Your task to perform on an android device: see creations saved in the google photos Image 0: 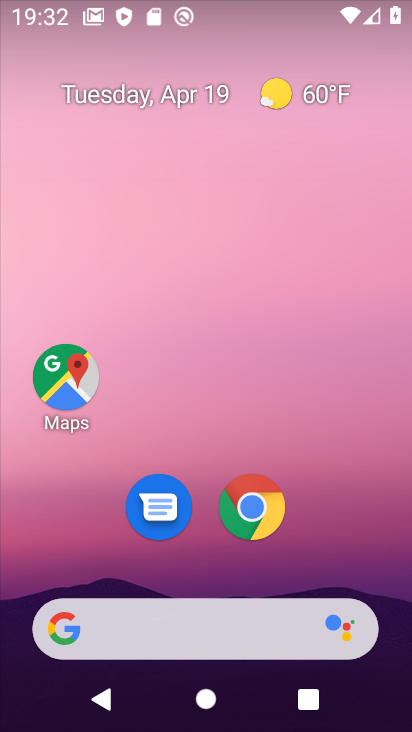
Step 0: drag from (344, 523) to (336, 96)
Your task to perform on an android device: see creations saved in the google photos Image 1: 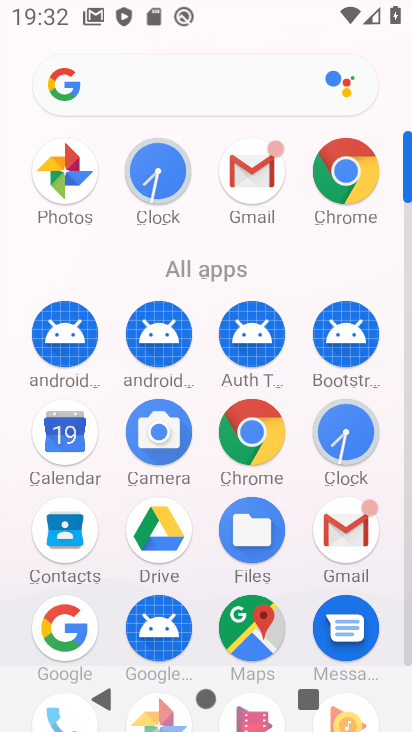
Step 1: click (75, 179)
Your task to perform on an android device: see creations saved in the google photos Image 2: 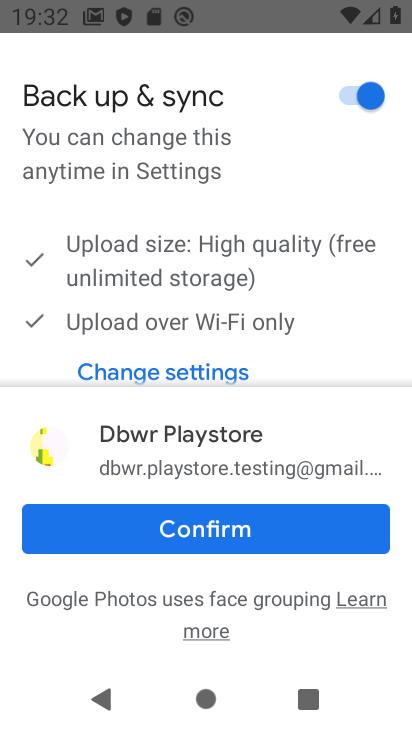
Step 2: click (242, 538)
Your task to perform on an android device: see creations saved in the google photos Image 3: 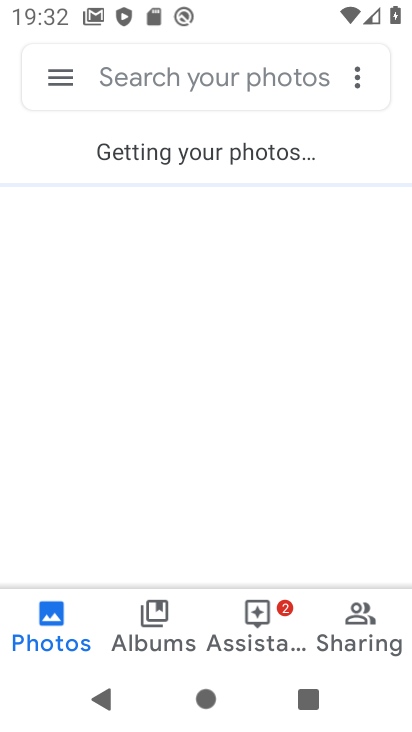
Step 3: click (240, 67)
Your task to perform on an android device: see creations saved in the google photos Image 4: 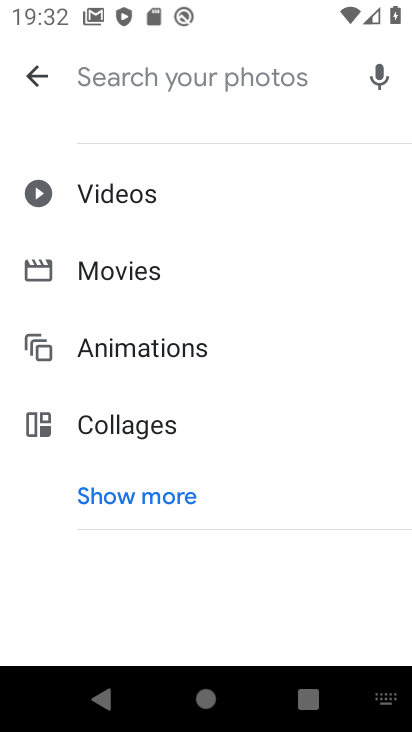
Step 4: click (161, 493)
Your task to perform on an android device: see creations saved in the google photos Image 5: 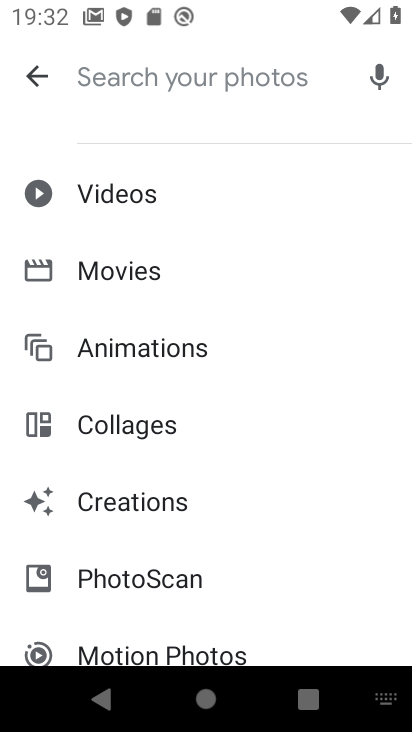
Step 5: click (161, 493)
Your task to perform on an android device: see creations saved in the google photos Image 6: 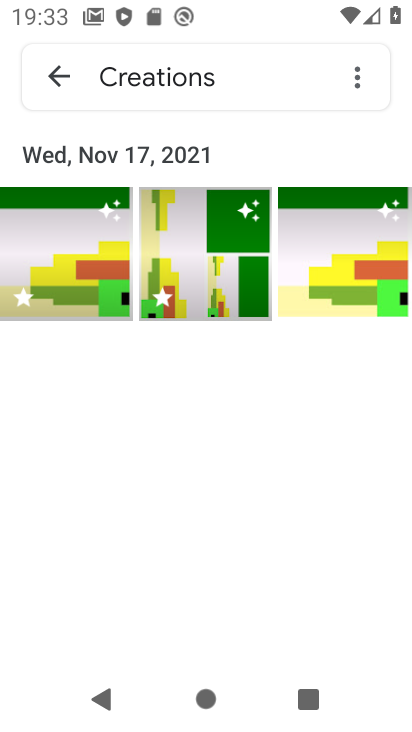
Step 6: task complete